Your task to perform on an android device: change the clock display to show seconds Image 0: 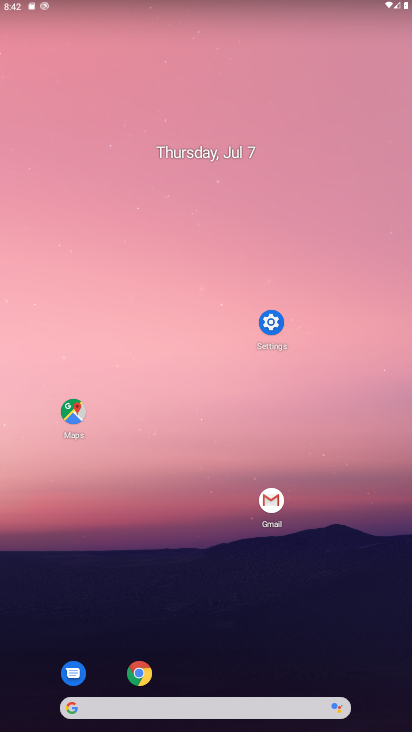
Step 0: drag from (403, 583) to (366, 87)
Your task to perform on an android device: change the clock display to show seconds Image 1: 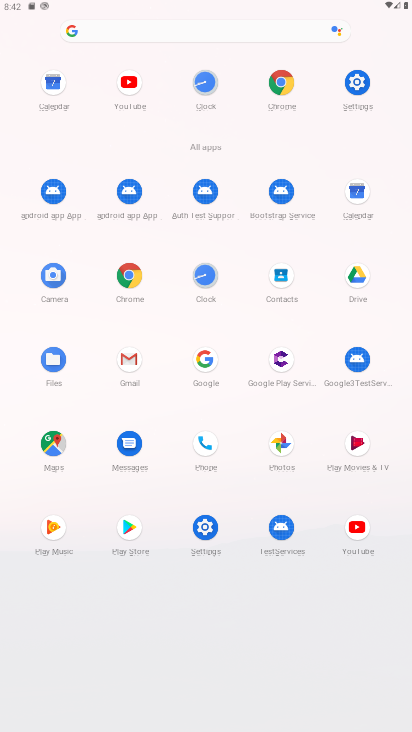
Step 1: click (211, 269)
Your task to perform on an android device: change the clock display to show seconds Image 2: 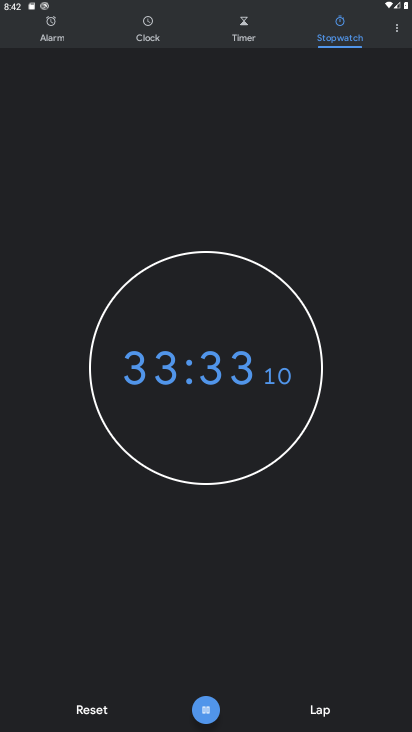
Step 2: click (394, 28)
Your task to perform on an android device: change the clock display to show seconds Image 3: 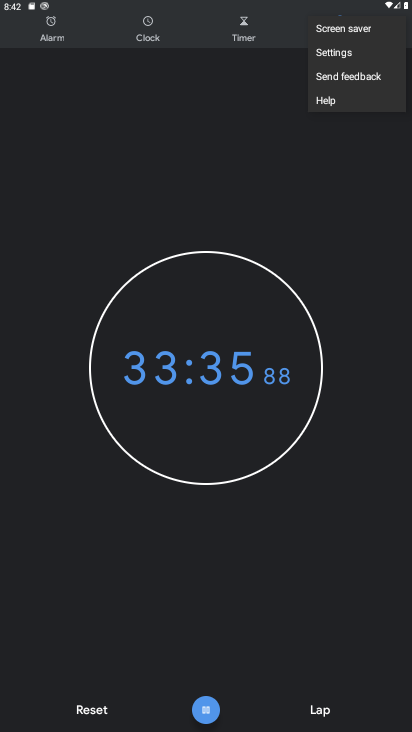
Step 3: click (349, 52)
Your task to perform on an android device: change the clock display to show seconds Image 4: 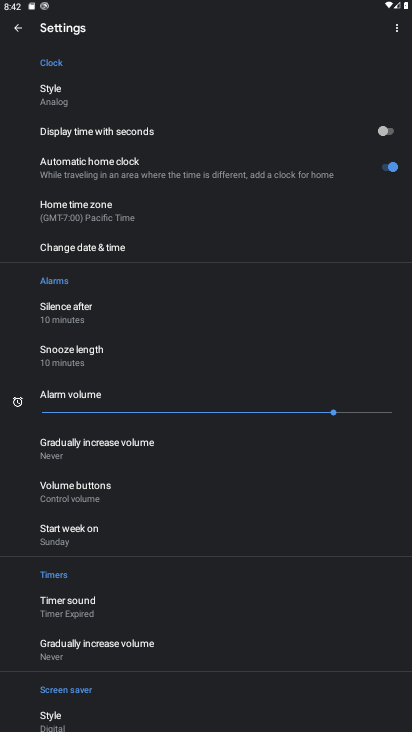
Step 4: click (391, 123)
Your task to perform on an android device: change the clock display to show seconds Image 5: 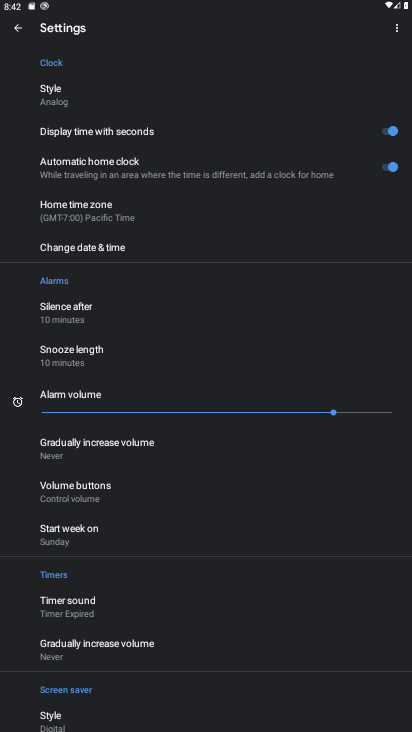
Step 5: task complete